Your task to perform on an android device: change notification settings in the gmail app Image 0: 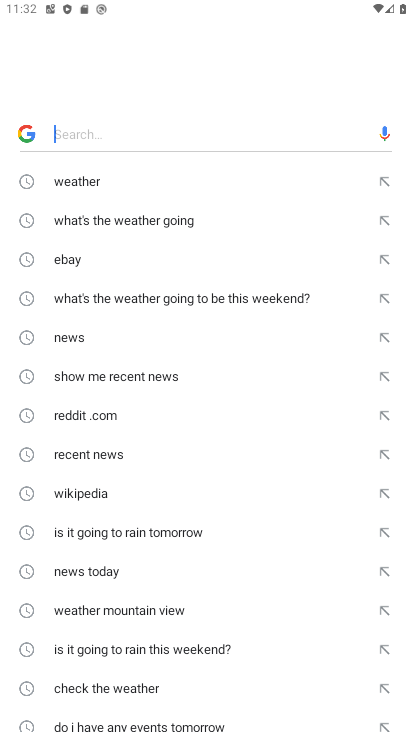
Step 0: press home button
Your task to perform on an android device: change notification settings in the gmail app Image 1: 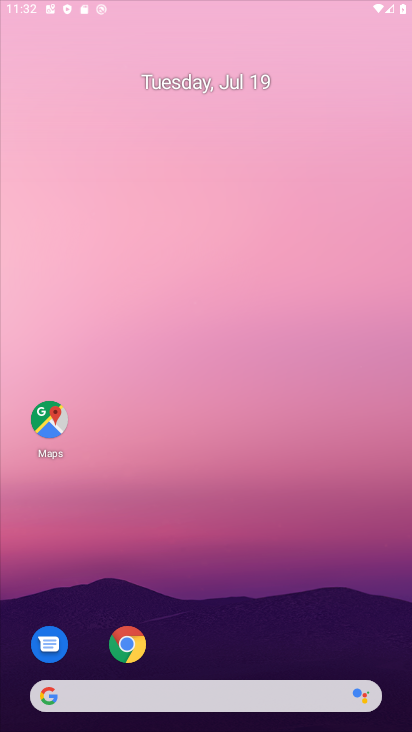
Step 1: drag from (306, 659) to (343, 58)
Your task to perform on an android device: change notification settings in the gmail app Image 2: 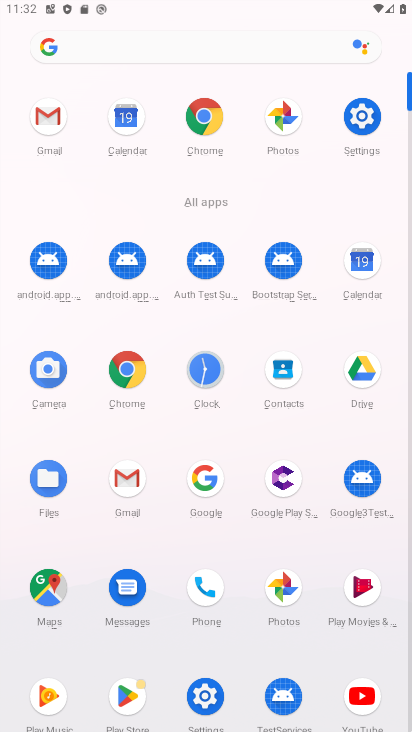
Step 2: click (134, 510)
Your task to perform on an android device: change notification settings in the gmail app Image 3: 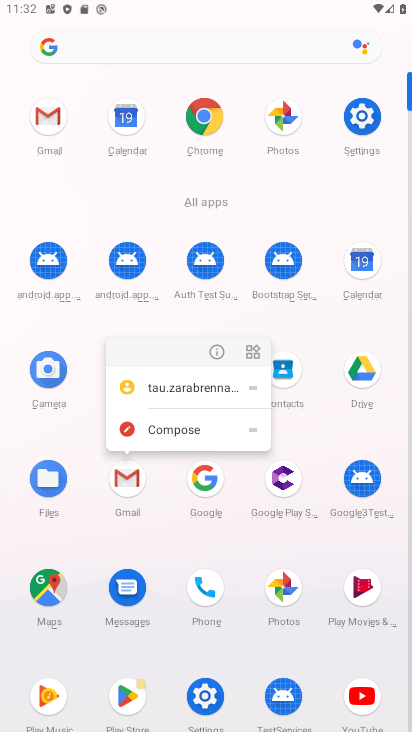
Step 3: click (199, 353)
Your task to perform on an android device: change notification settings in the gmail app Image 4: 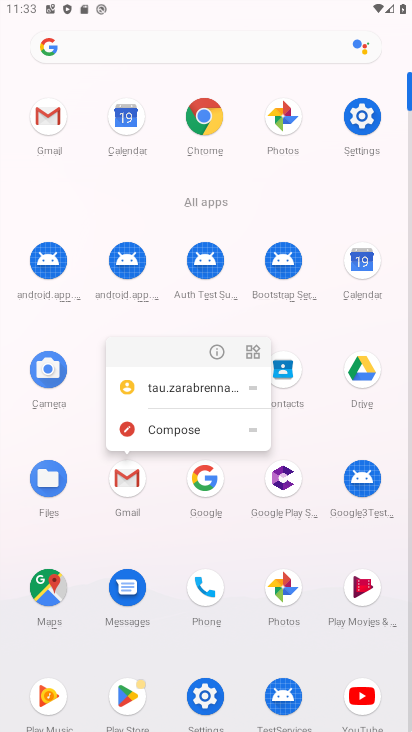
Step 4: click (214, 364)
Your task to perform on an android device: change notification settings in the gmail app Image 5: 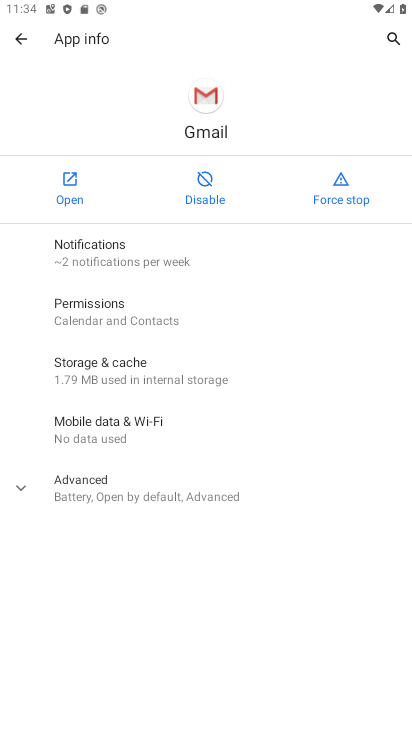
Step 5: click (66, 259)
Your task to perform on an android device: change notification settings in the gmail app Image 6: 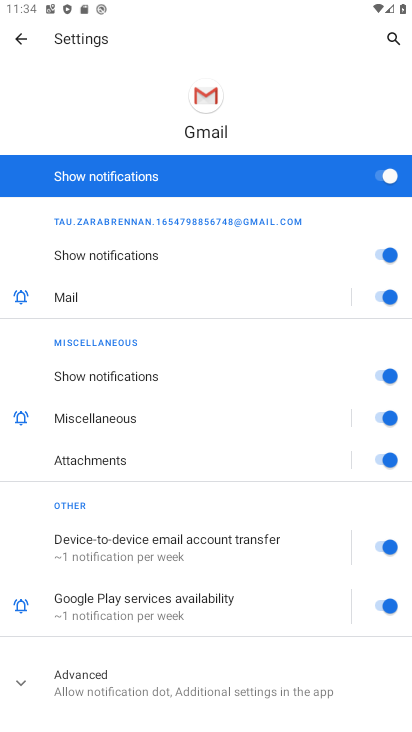
Step 6: click (312, 184)
Your task to perform on an android device: change notification settings in the gmail app Image 7: 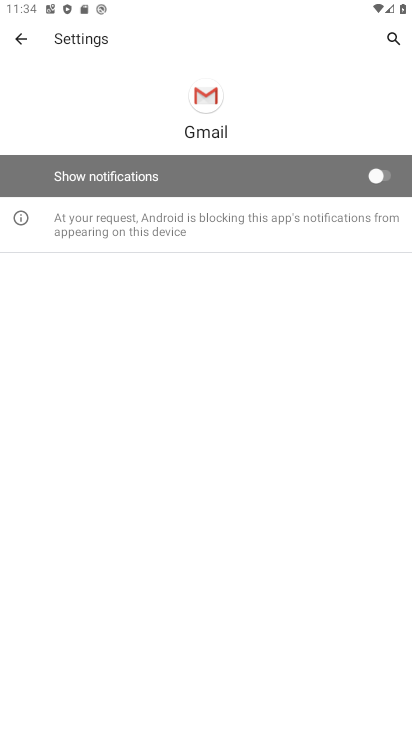
Step 7: task complete